Your task to perform on an android device: Search for seafood restaurants on Google Maps Image 0: 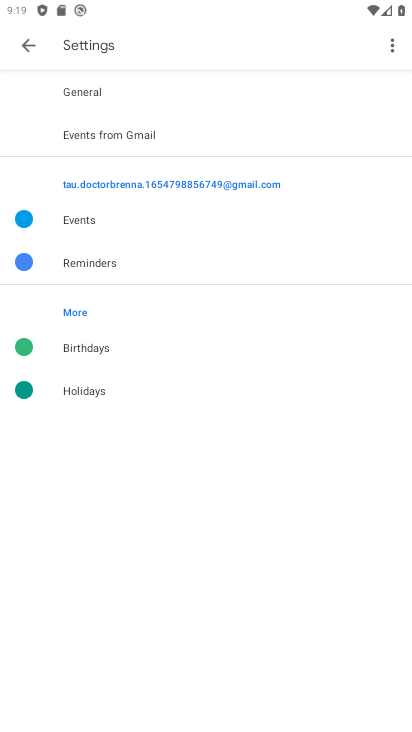
Step 0: press home button
Your task to perform on an android device: Search for seafood restaurants on Google Maps Image 1: 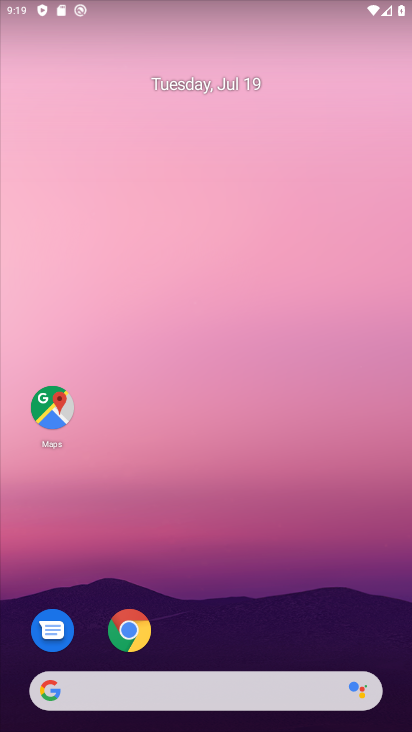
Step 1: click (52, 412)
Your task to perform on an android device: Search for seafood restaurants on Google Maps Image 2: 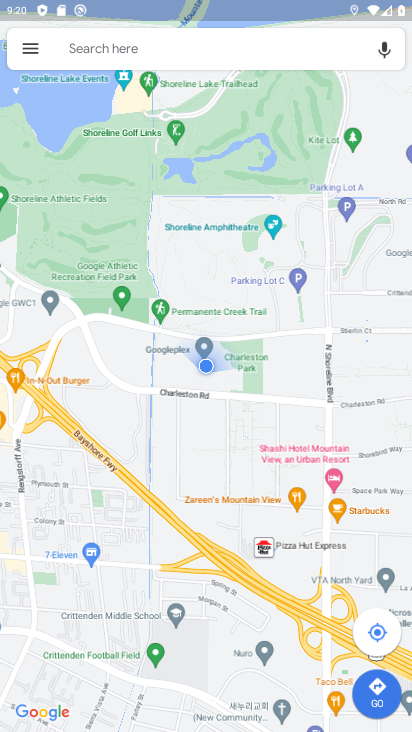
Step 2: click (79, 42)
Your task to perform on an android device: Search for seafood restaurants on Google Maps Image 3: 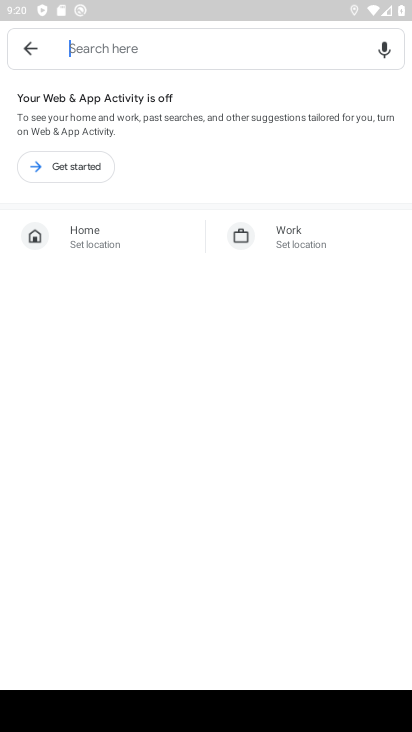
Step 3: type "seafood restaurants"
Your task to perform on an android device: Search for seafood restaurants on Google Maps Image 4: 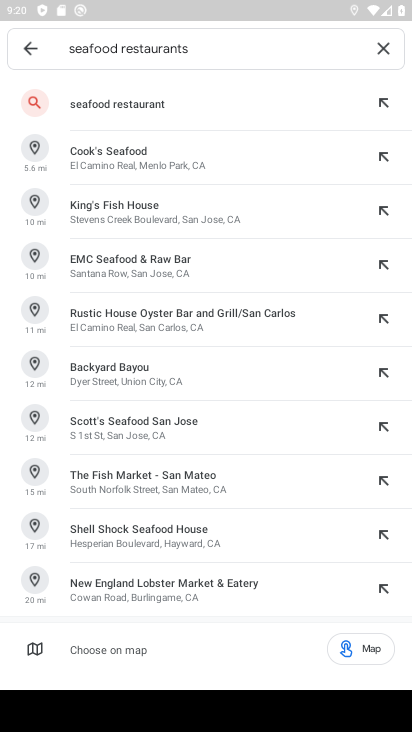
Step 4: click (98, 103)
Your task to perform on an android device: Search for seafood restaurants on Google Maps Image 5: 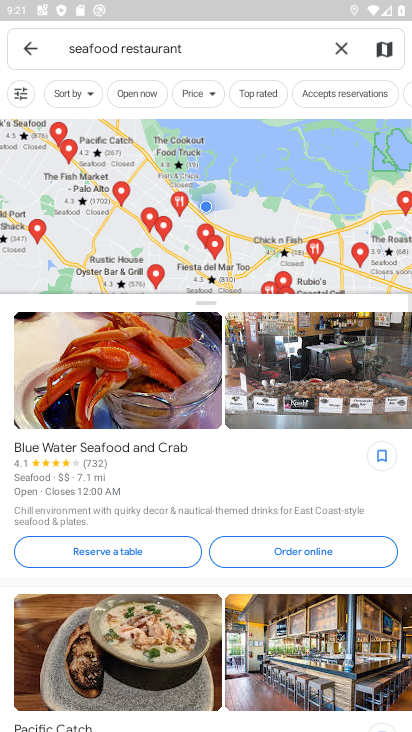
Step 5: task complete